Your task to perform on an android device: turn on the 12-hour format for clock Image 0: 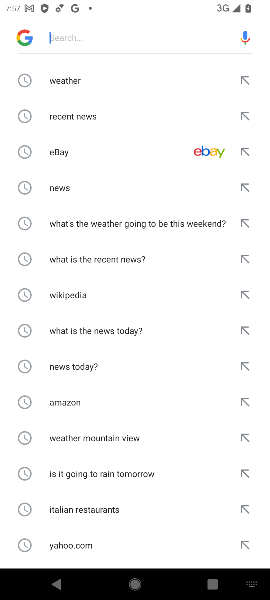
Step 0: press home button
Your task to perform on an android device: turn on the 12-hour format for clock Image 1: 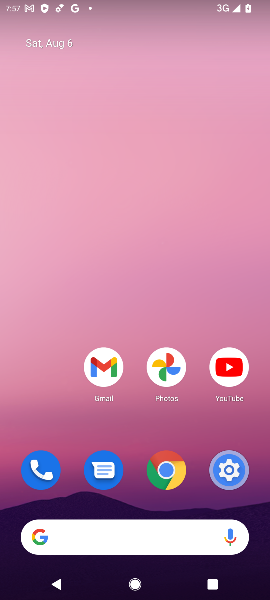
Step 1: drag from (158, 502) to (268, 243)
Your task to perform on an android device: turn on the 12-hour format for clock Image 2: 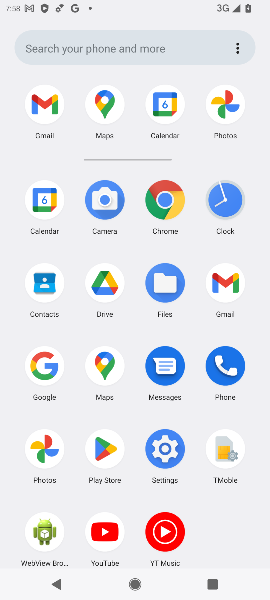
Step 2: click (220, 205)
Your task to perform on an android device: turn on the 12-hour format for clock Image 3: 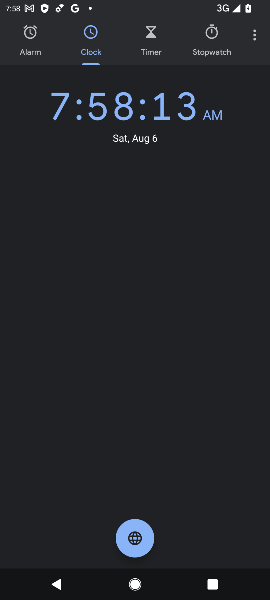
Step 3: click (246, 36)
Your task to perform on an android device: turn on the 12-hour format for clock Image 4: 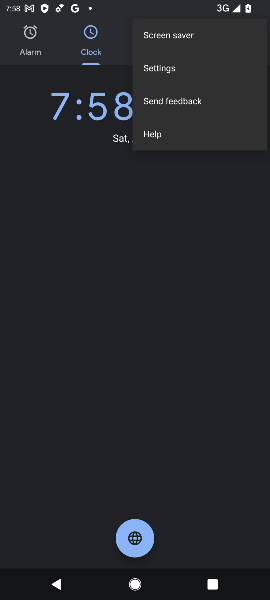
Step 4: click (156, 74)
Your task to perform on an android device: turn on the 12-hour format for clock Image 5: 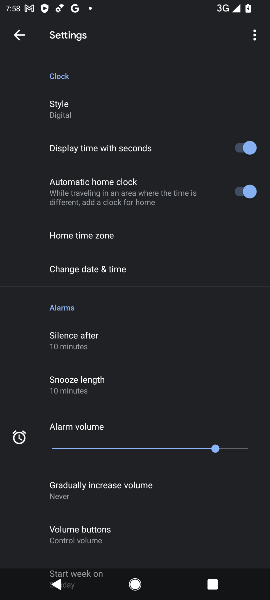
Step 5: click (77, 271)
Your task to perform on an android device: turn on the 12-hour format for clock Image 6: 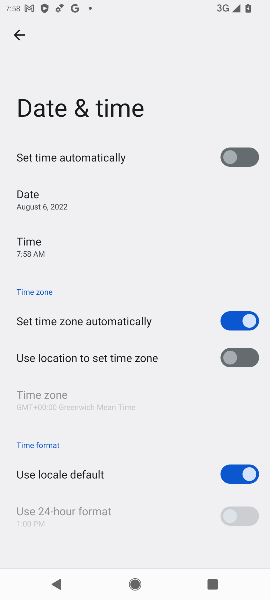
Step 6: task complete